Your task to perform on an android device: allow cookies in the chrome app Image 0: 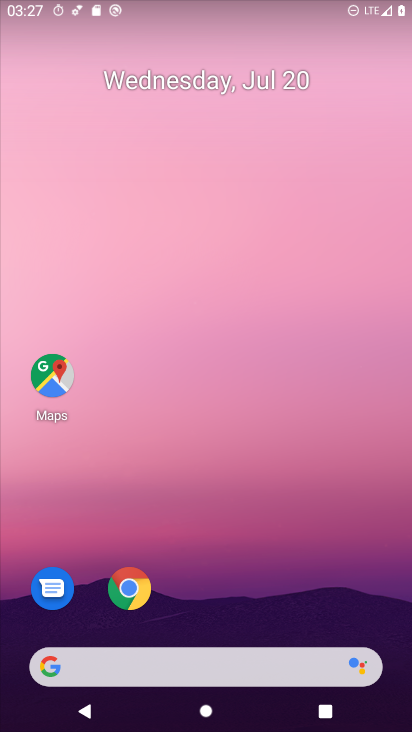
Step 0: drag from (195, 622) to (177, 15)
Your task to perform on an android device: allow cookies in the chrome app Image 1: 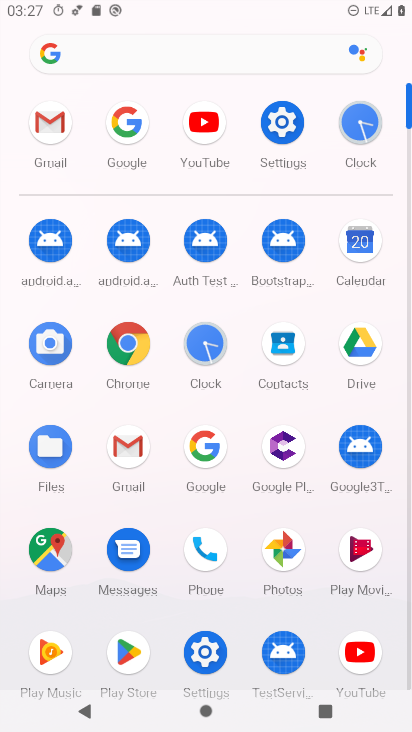
Step 1: click (137, 352)
Your task to perform on an android device: allow cookies in the chrome app Image 2: 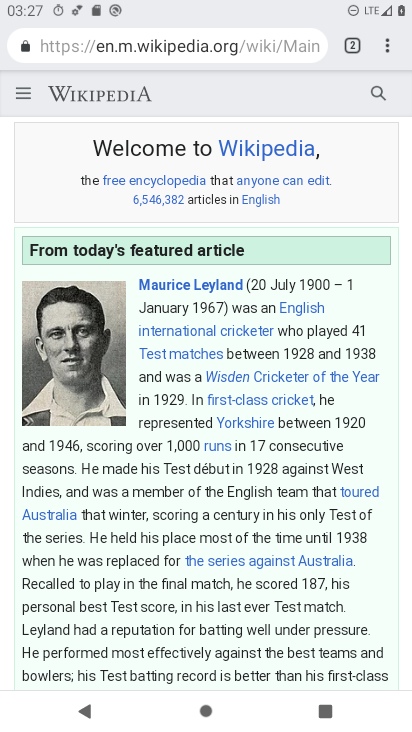
Step 2: click (391, 51)
Your task to perform on an android device: allow cookies in the chrome app Image 3: 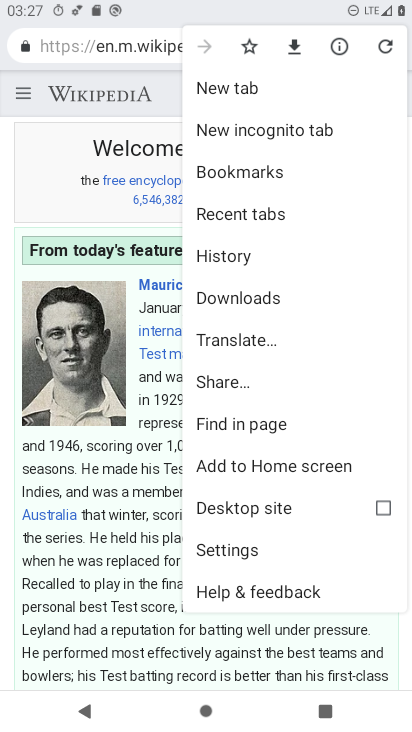
Step 3: click (216, 558)
Your task to perform on an android device: allow cookies in the chrome app Image 4: 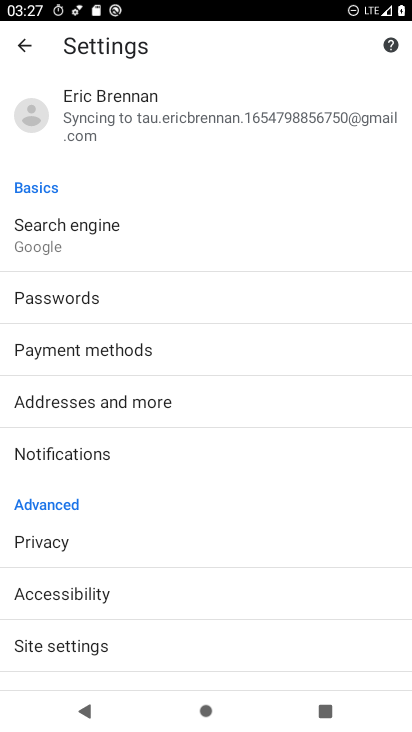
Step 4: drag from (263, 604) to (212, 149)
Your task to perform on an android device: allow cookies in the chrome app Image 5: 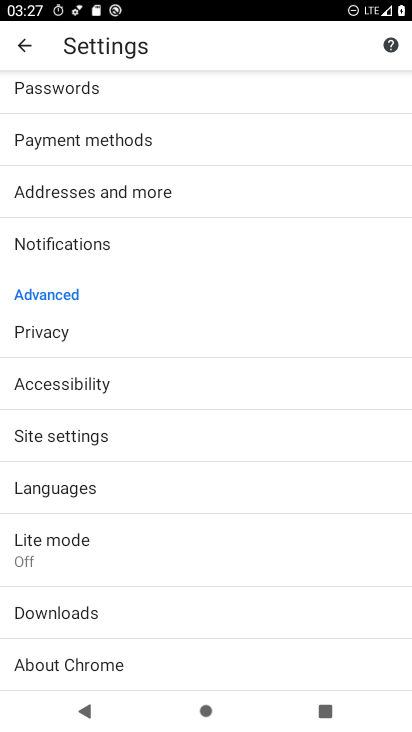
Step 5: click (66, 441)
Your task to perform on an android device: allow cookies in the chrome app Image 6: 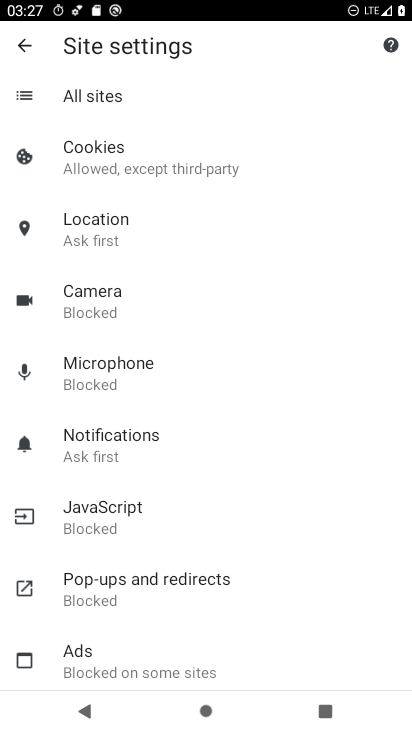
Step 6: click (128, 172)
Your task to perform on an android device: allow cookies in the chrome app Image 7: 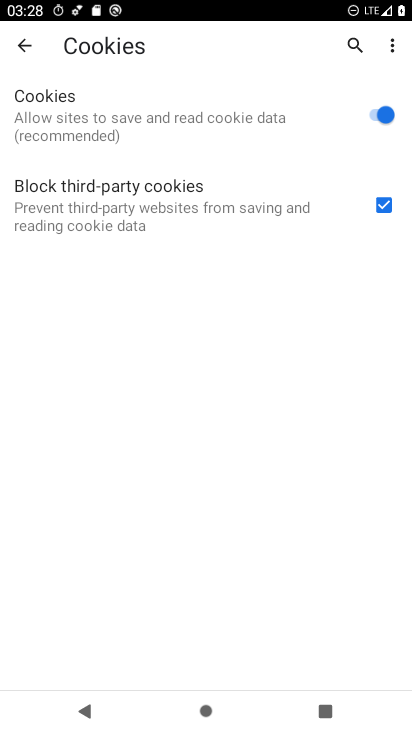
Step 7: task complete